Your task to perform on an android device: Search for usb-c to usb-a on costco.com, select the first entry, and add it to the cart. Image 0: 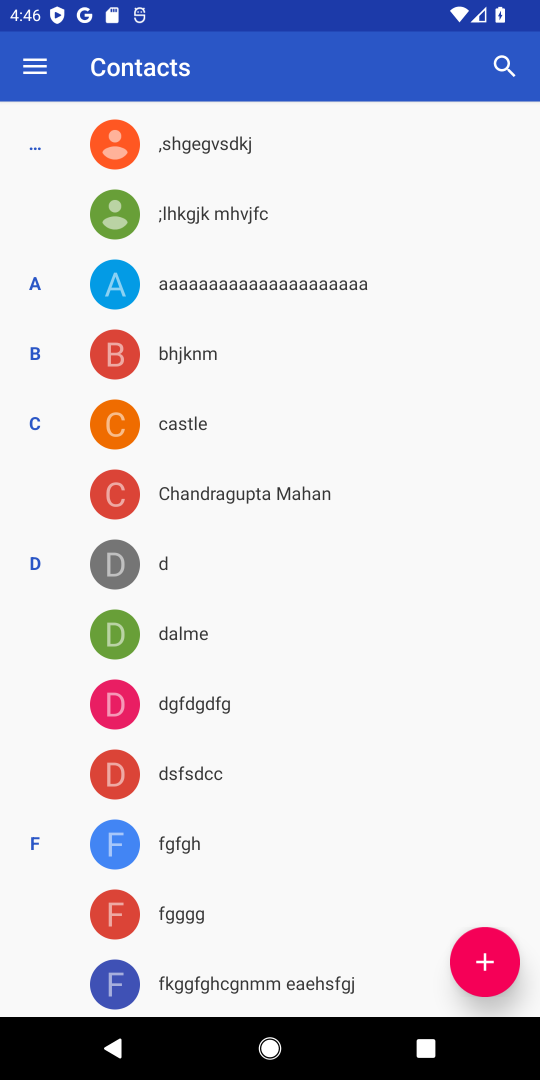
Step 0: press home button
Your task to perform on an android device: Search for usb-c to usb-a on costco.com, select the first entry, and add it to the cart. Image 1: 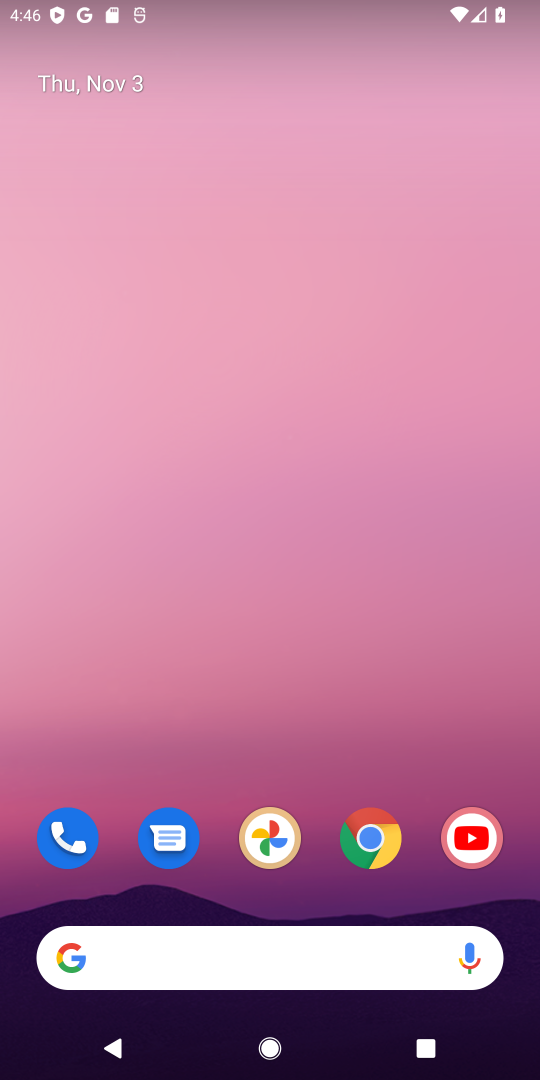
Step 1: click (366, 856)
Your task to perform on an android device: Search for usb-c to usb-a on costco.com, select the first entry, and add it to the cart. Image 2: 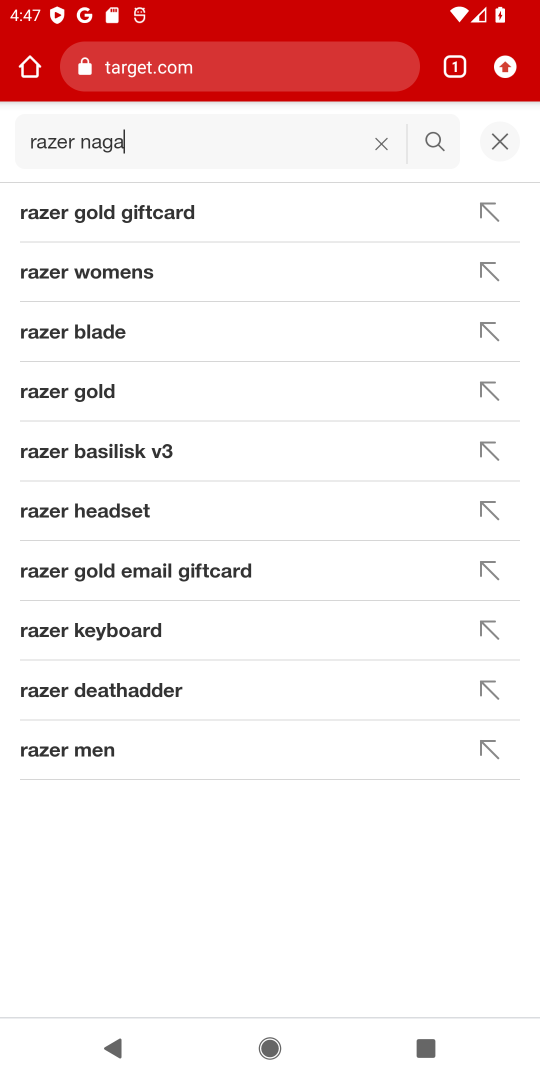
Step 2: click (381, 144)
Your task to perform on an android device: Search for usb-c to usb-a on costco.com, select the first entry, and add it to the cart. Image 3: 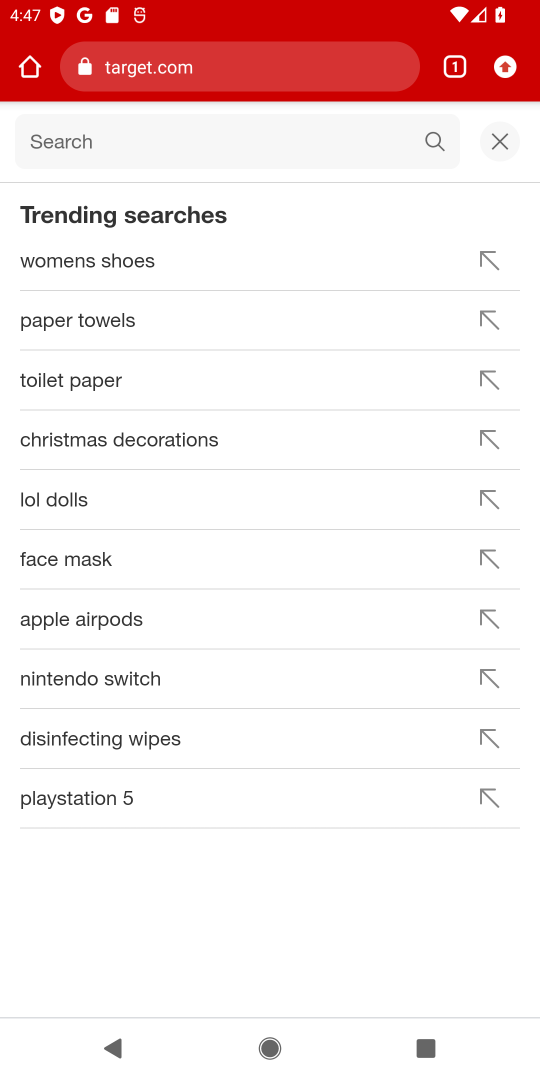
Step 3: click (289, 140)
Your task to perform on an android device: Search for usb-c to usb-a on costco.com, select the first entry, and add it to the cart. Image 4: 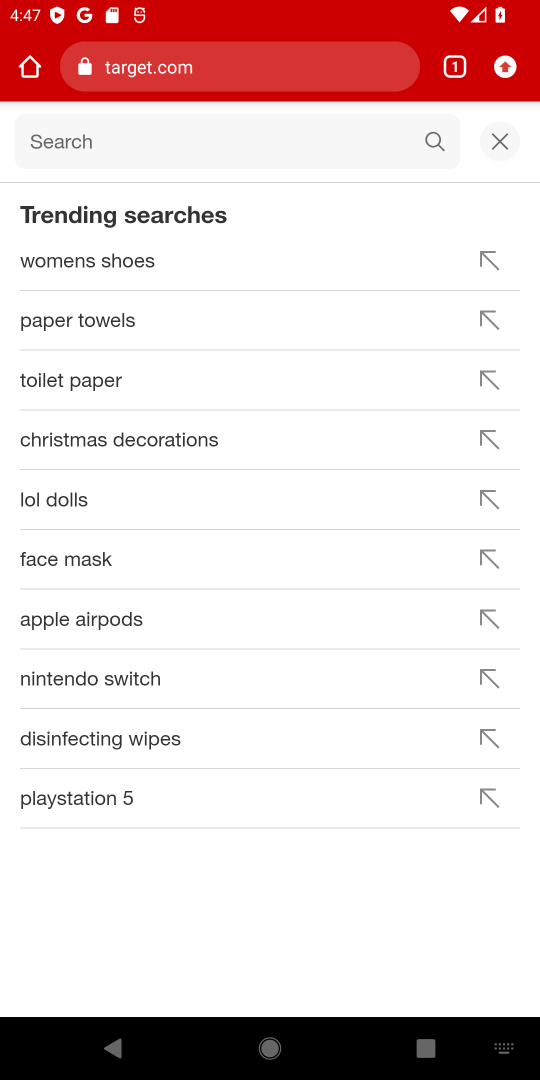
Step 4: click (232, 64)
Your task to perform on an android device: Search for usb-c to usb-a on costco.com, select the first entry, and add it to the cart. Image 5: 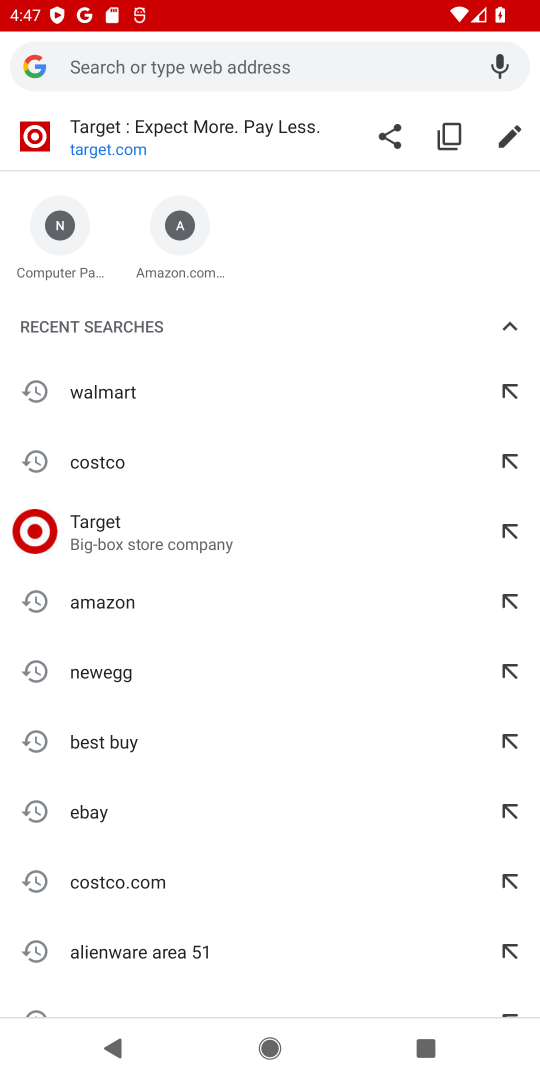
Step 5: click (202, 68)
Your task to perform on an android device: Search for usb-c to usb-a on costco.com, select the first entry, and add it to the cart. Image 6: 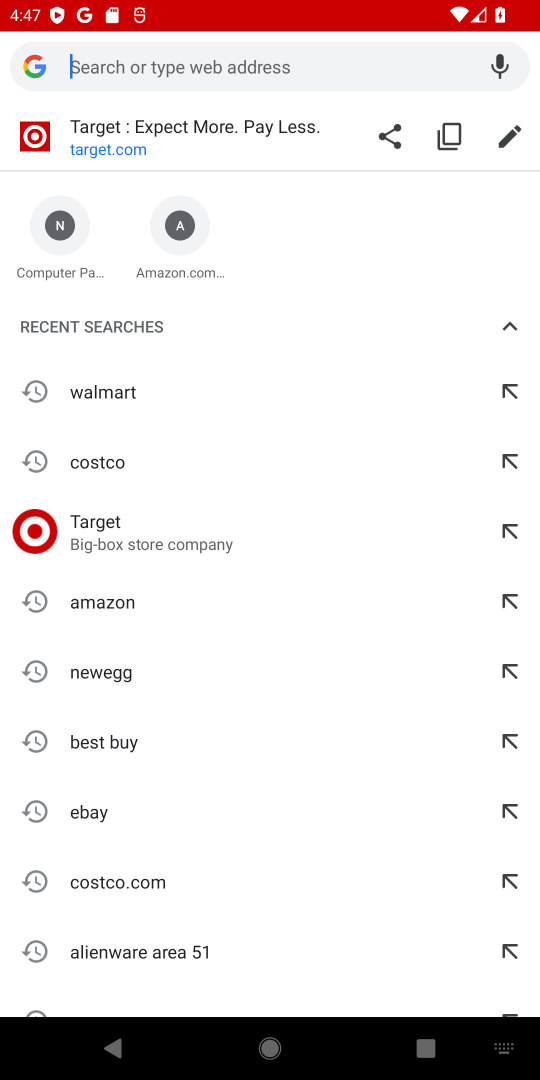
Step 6: click (89, 454)
Your task to perform on an android device: Search for usb-c to usb-a on costco.com, select the first entry, and add it to the cart. Image 7: 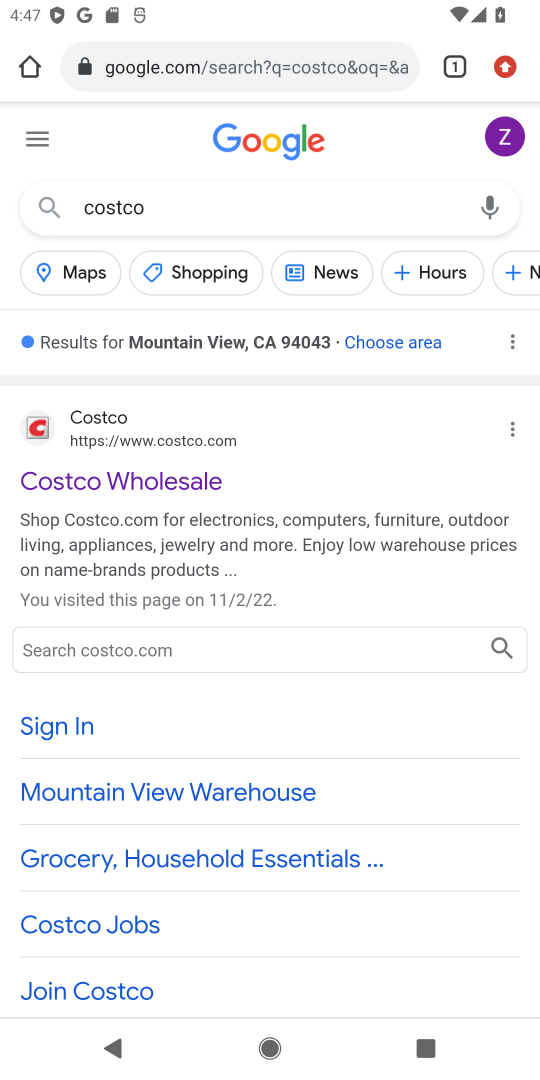
Step 7: click (155, 483)
Your task to perform on an android device: Search for usb-c to usb-a on costco.com, select the first entry, and add it to the cart. Image 8: 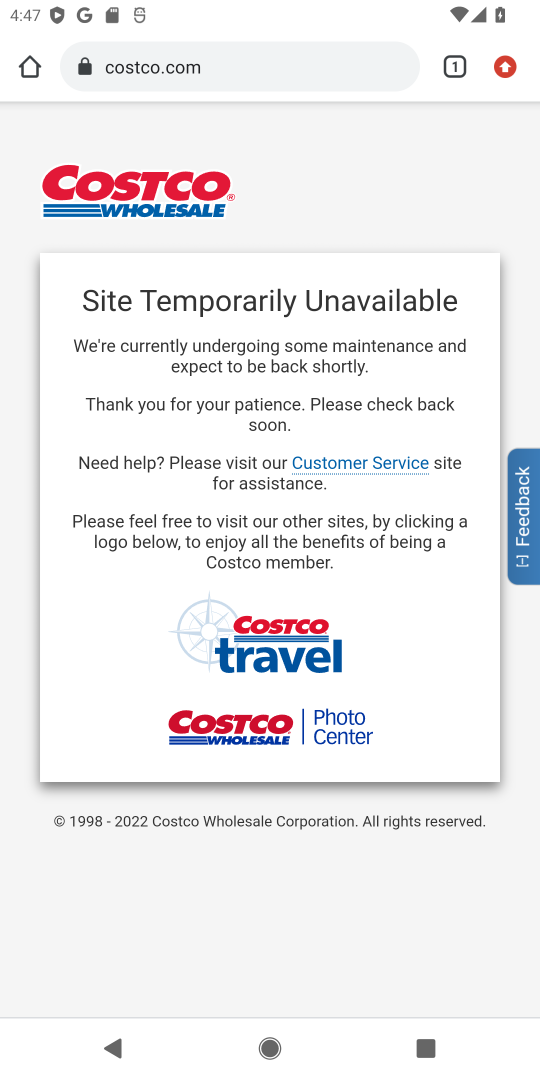
Step 8: task complete